Your task to perform on an android device: turn on wifi Image 0: 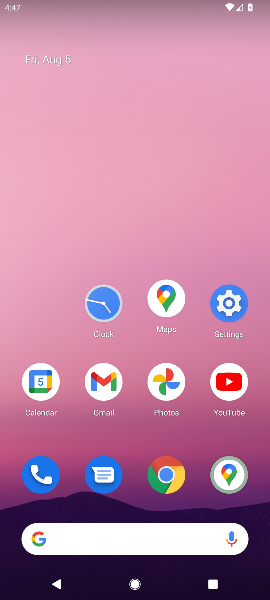
Step 0: click (226, 298)
Your task to perform on an android device: turn on wifi Image 1: 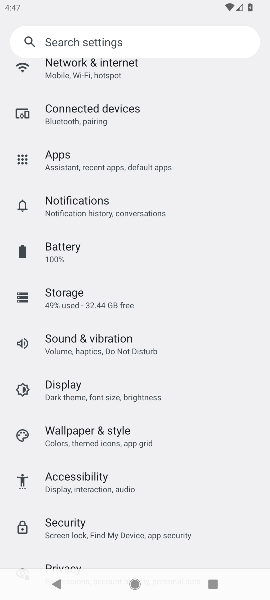
Step 1: drag from (176, 149) to (195, 411)
Your task to perform on an android device: turn on wifi Image 2: 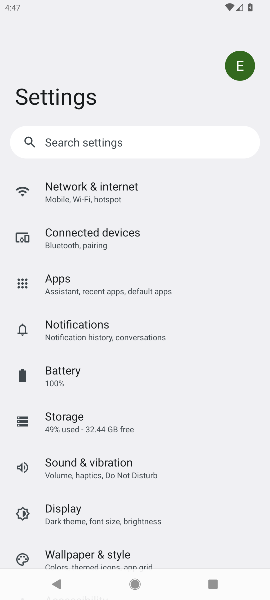
Step 2: click (72, 188)
Your task to perform on an android device: turn on wifi Image 3: 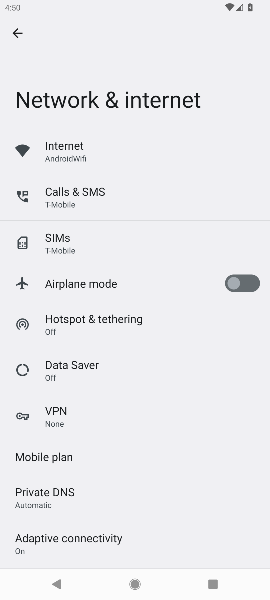
Step 3: click (61, 147)
Your task to perform on an android device: turn on wifi Image 4: 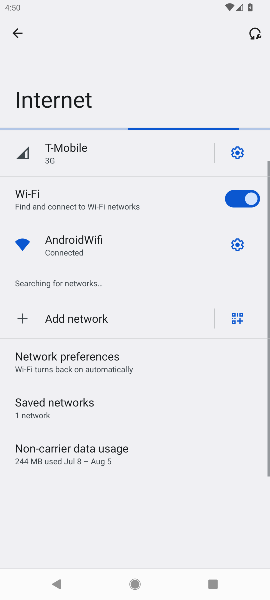
Step 4: task complete